Your task to perform on an android device: turn off smart reply in the gmail app Image 0: 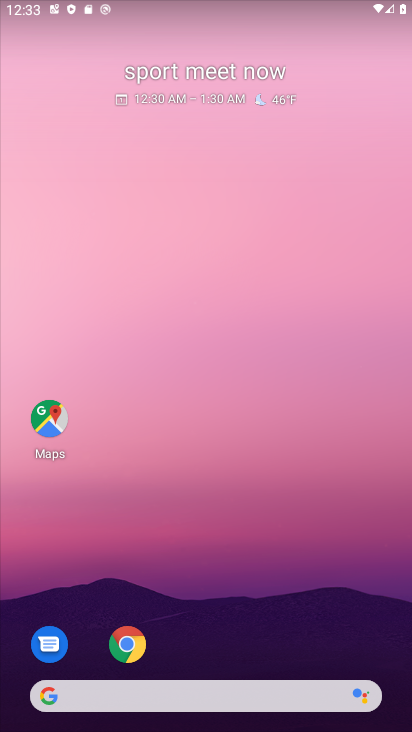
Step 0: drag from (65, 546) to (241, 173)
Your task to perform on an android device: turn off smart reply in the gmail app Image 1: 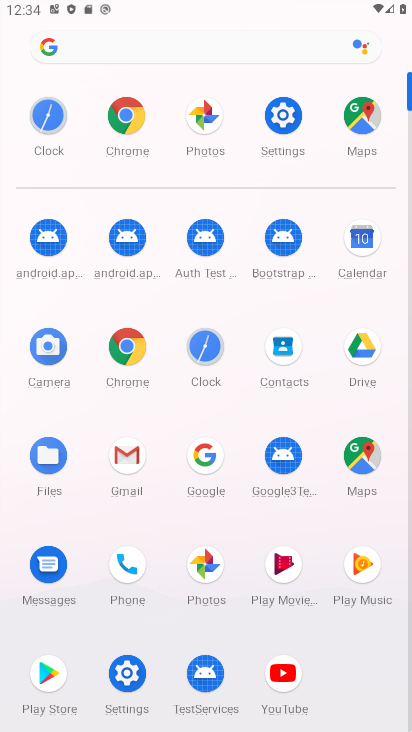
Step 1: click (134, 458)
Your task to perform on an android device: turn off smart reply in the gmail app Image 2: 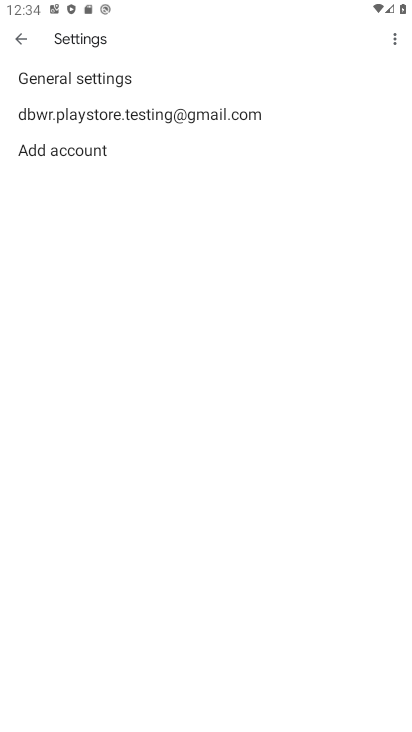
Step 2: click (37, 112)
Your task to perform on an android device: turn off smart reply in the gmail app Image 3: 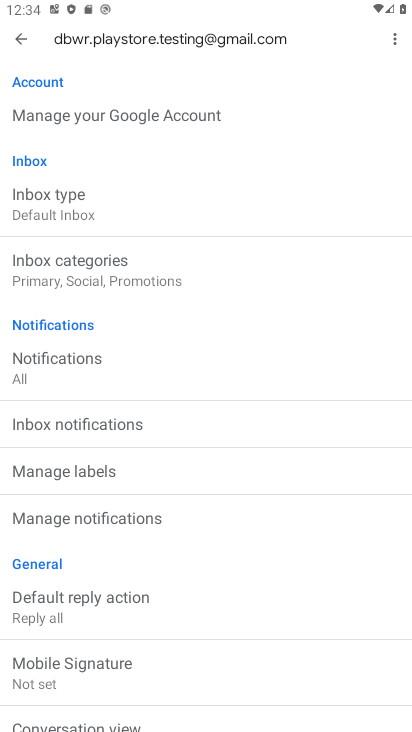
Step 3: drag from (85, 664) to (254, 153)
Your task to perform on an android device: turn off smart reply in the gmail app Image 4: 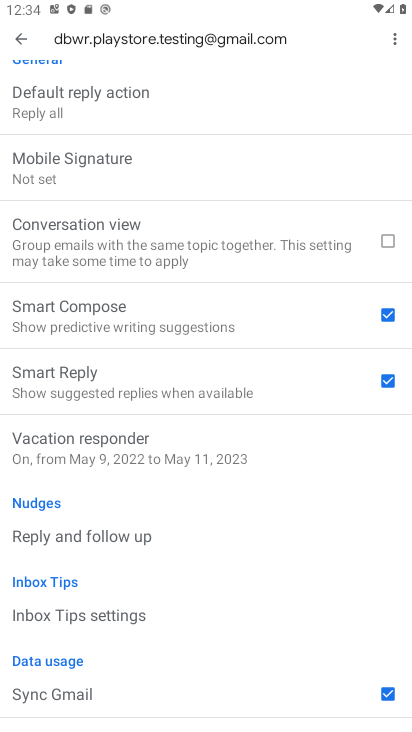
Step 4: drag from (83, 623) to (211, 228)
Your task to perform on an android device: turn off smart reply in the gmail app Image 5: 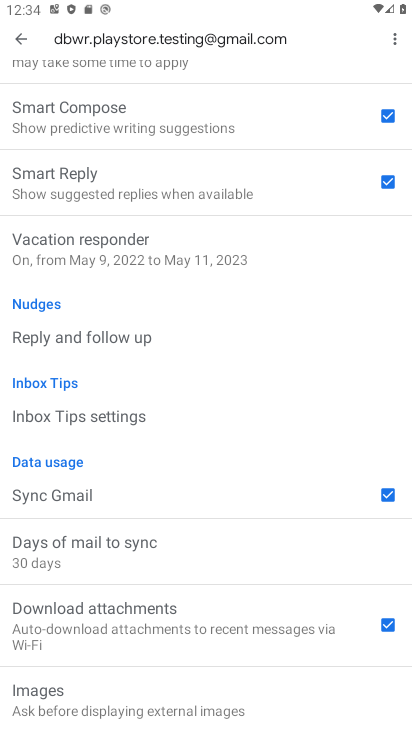
Step 5: drag from (155, 619) to (274, 259)
Your task to perform on an android device: turn off smart reply in the gmail app Image 6: 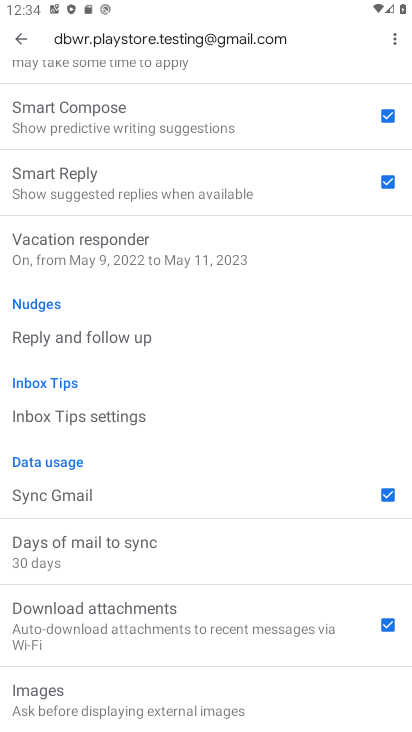
Step 6: click (389, 185)
Your task to perform on an android device: turn off smart reply in the gmail app Image 7: 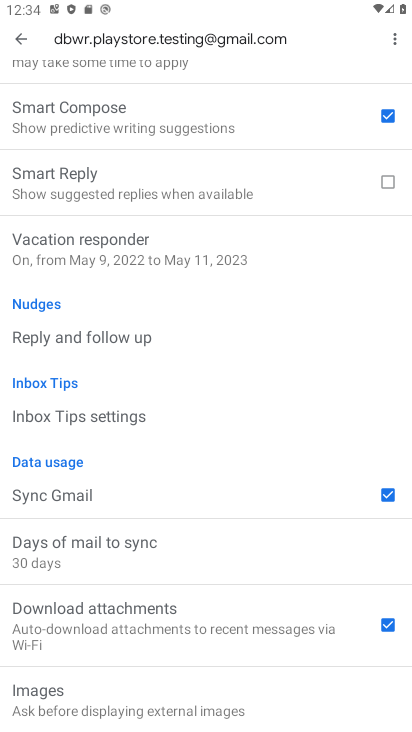
Step 7: task complete